Your task to perform on an android device: check storage Image 0: 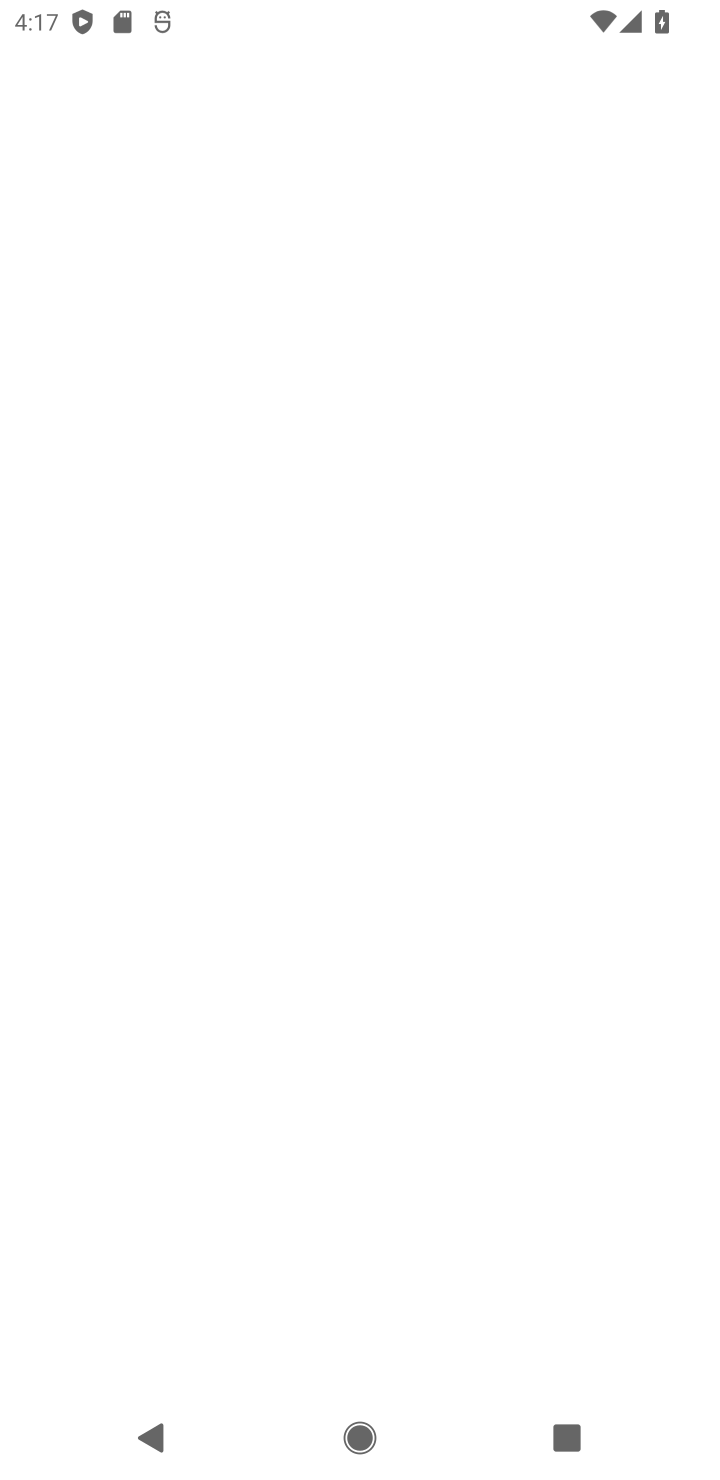
Step 0: press home button
Your task to perform on an android device: check storage Image 1: 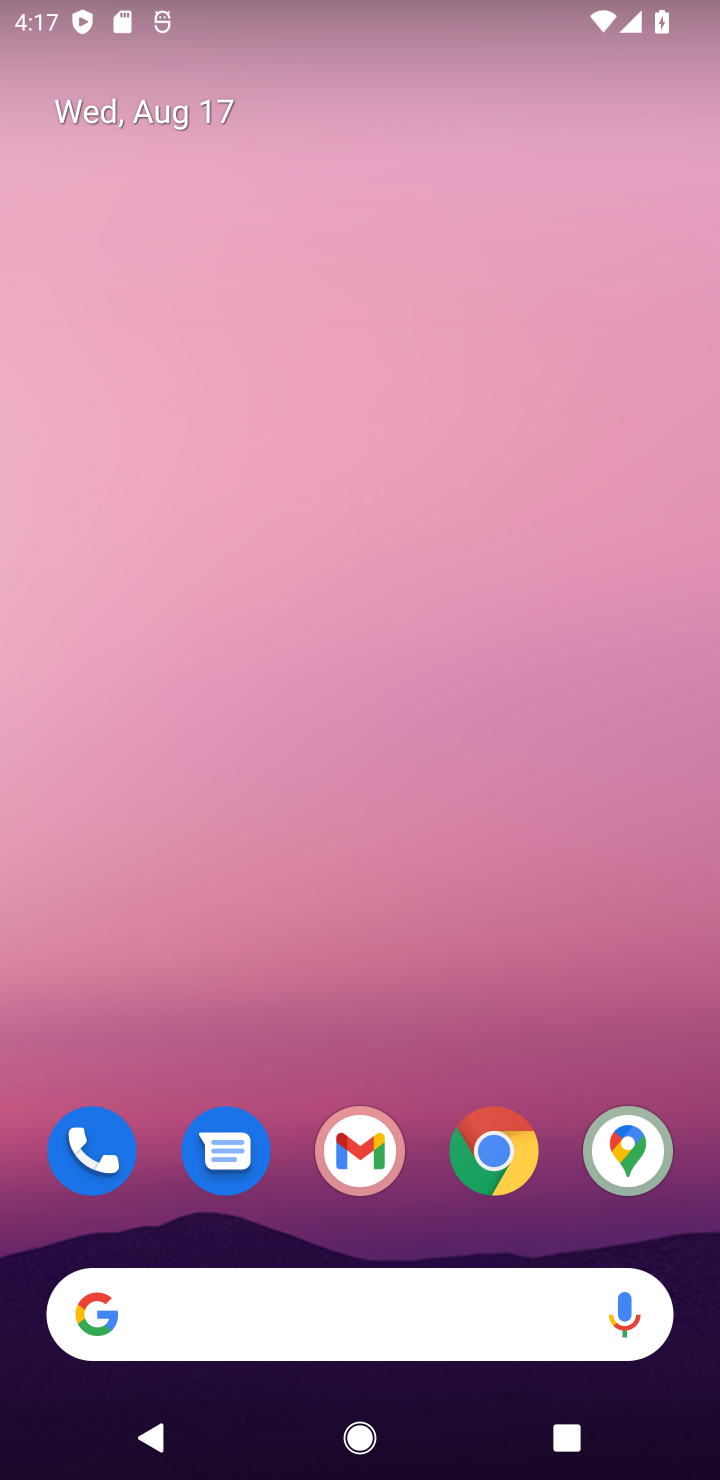
Step 1: drag from (428, 1243) to (218, 3)
Your task to perform on an android device: check storage Image 2: 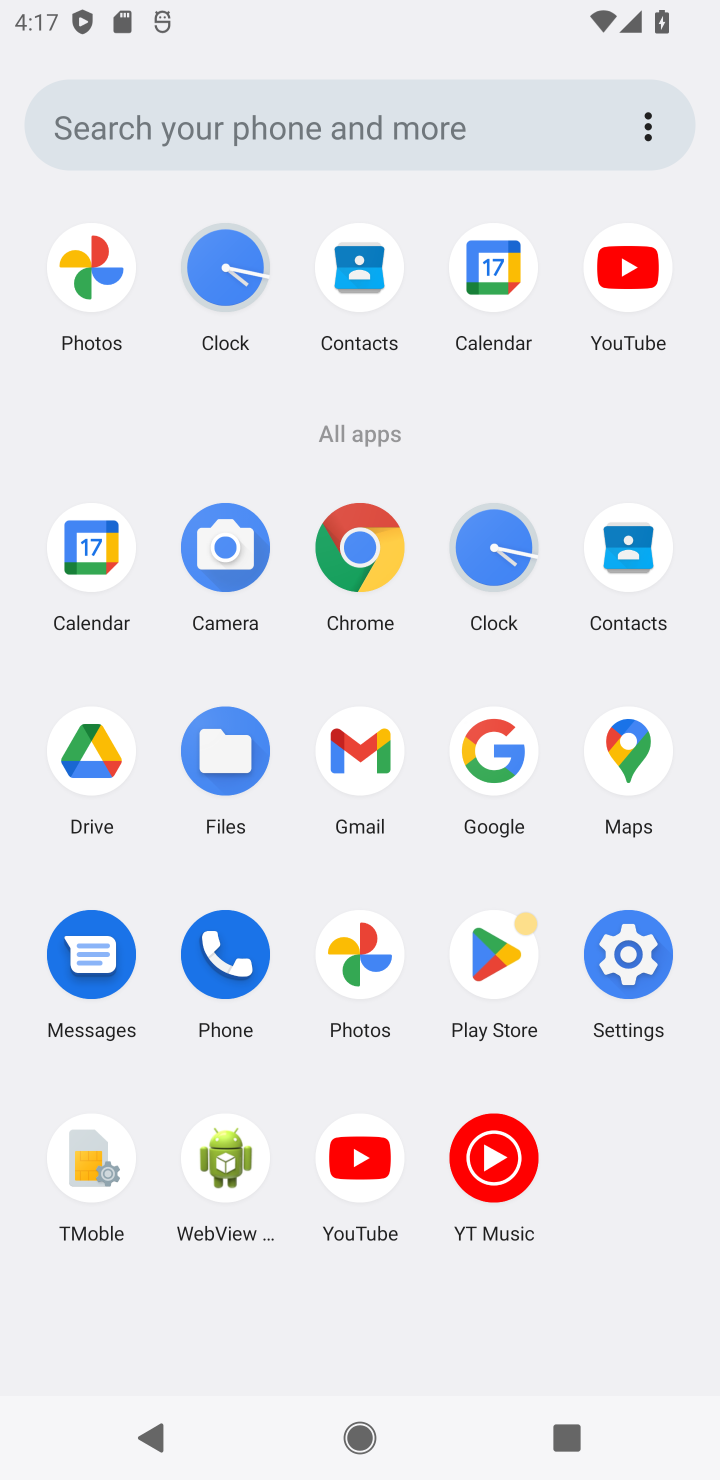
Step 2: click (656, 999)
Your task to perform on an android device: check storage Image 3: 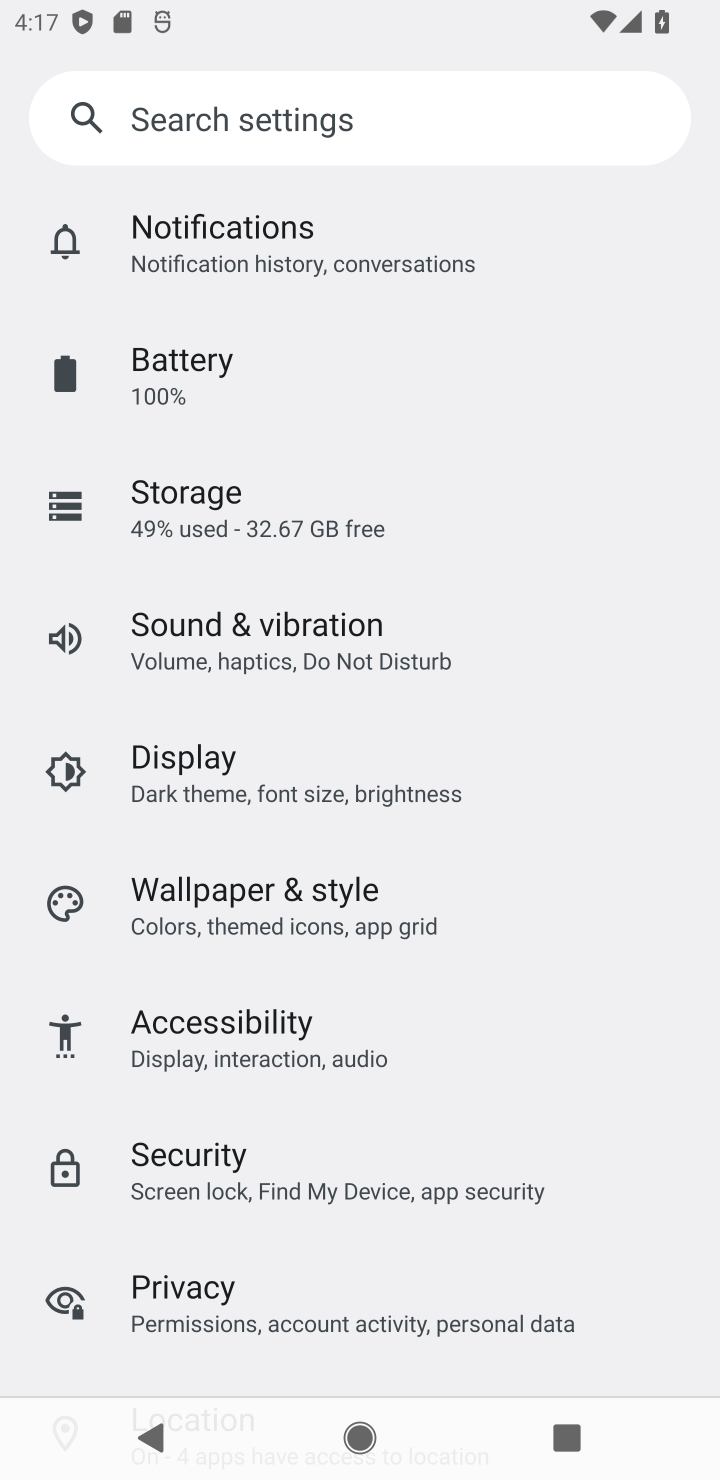
Step 3: click (307, 476)
Your task to perform on an android device: check storage Image 4: 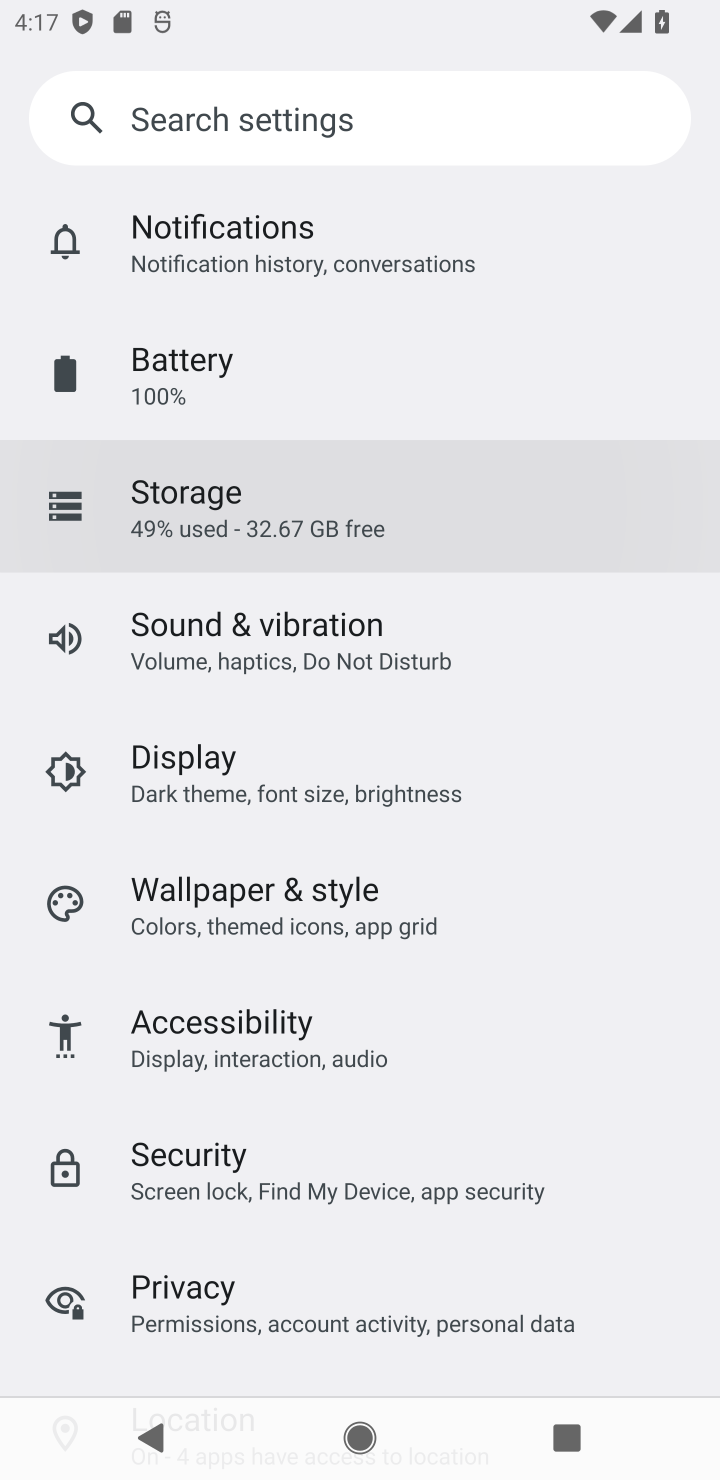
Step 4: task complete